Your task to perform on an android device: Open Google Chrome and open the bookmarks view Image 0: 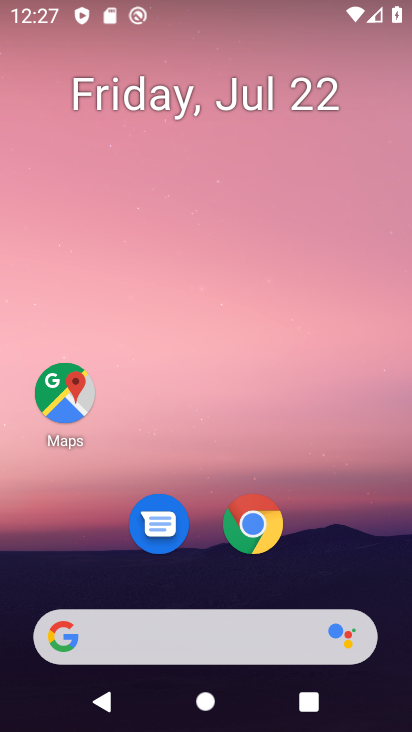
Step 0: click (242, 528)
Your task to perform on an android device: Open Google Chrome and open the bookmarks view Image 1: 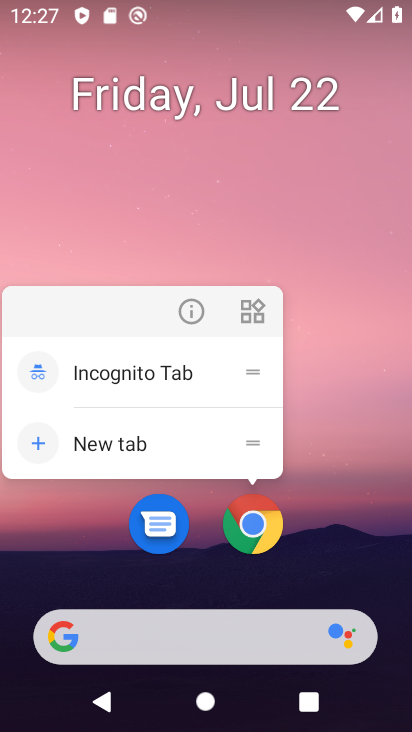
Step 1: click (247, 524)
Your task to perform on an android device: Open Google Chrome and open the bookmarks view Image 2: 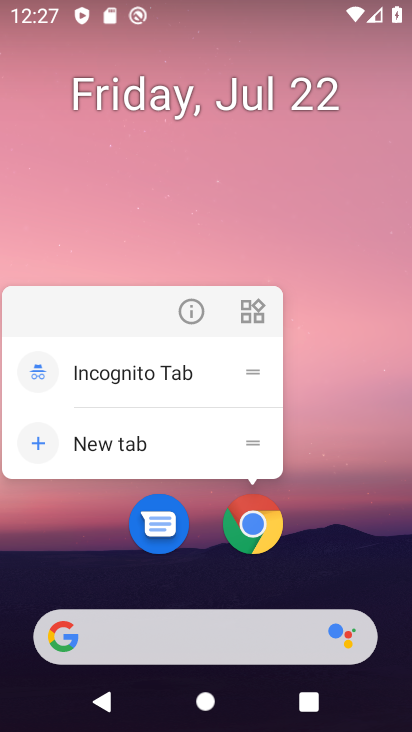
Step 2: click (256, 526)
Your task to perform on an android device: Open Google Chrome and open the bookmarks view Image 3: 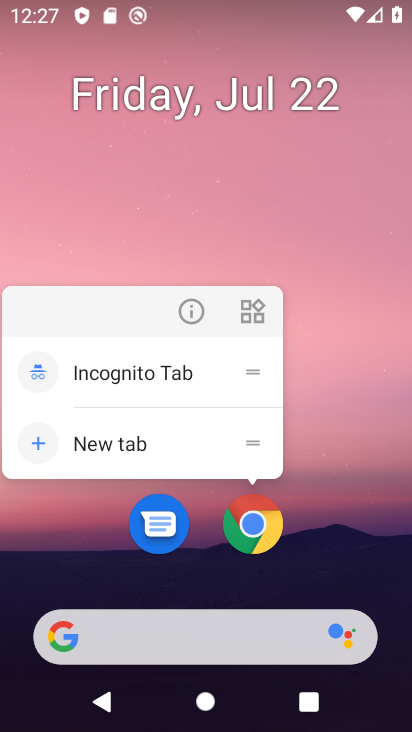
Step 3: click (256, 528)
Your task to perform on an android device: Open Google Chrome and open the bookmarks view Image 4: 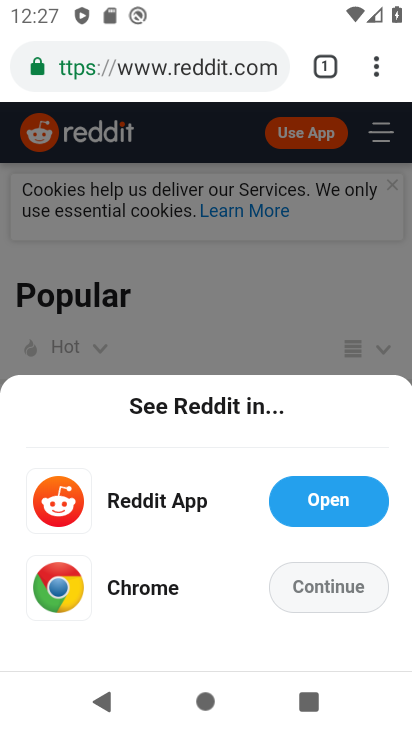
Step 4: task complete